Your task to perform on an android device: What's the weather going to be tomorrow? Image 0: 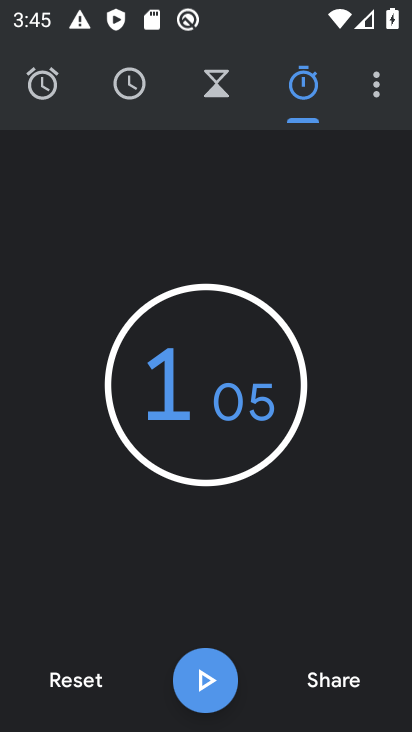
Step 0: press home button
Your task to perform on an android device: What's the weather going to be tomorrow? Image 1: 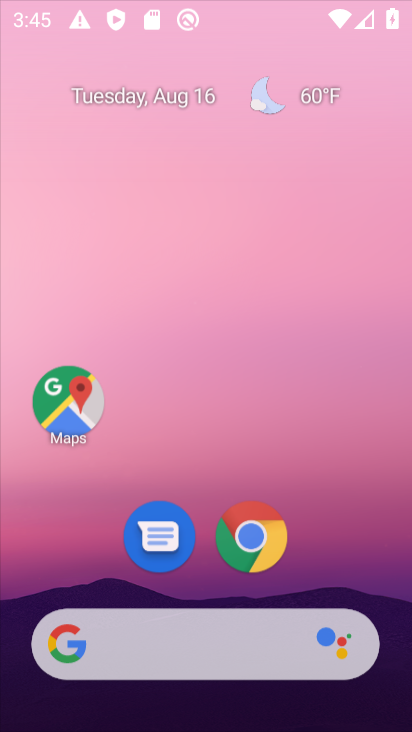
Step 1: drag from (367, 641) to (196, 24)
Your task to perform on an android device: What's the weather going to be tomorrow? Image 2: 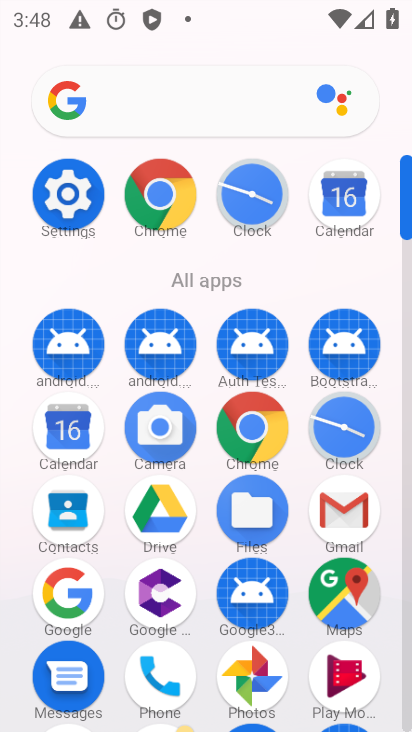
Step 2: click (80, 588)
Your task to perform on an android device: What's the weather going to be tomorrow? Image 3: 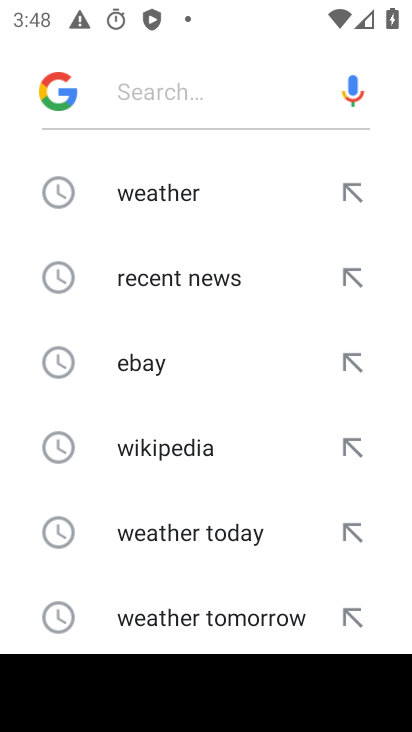
Step 3: drag from (188, 583) to (148, 104)
Your task to perform on an android device: What's the weather going to be tomorrow? Image 4: 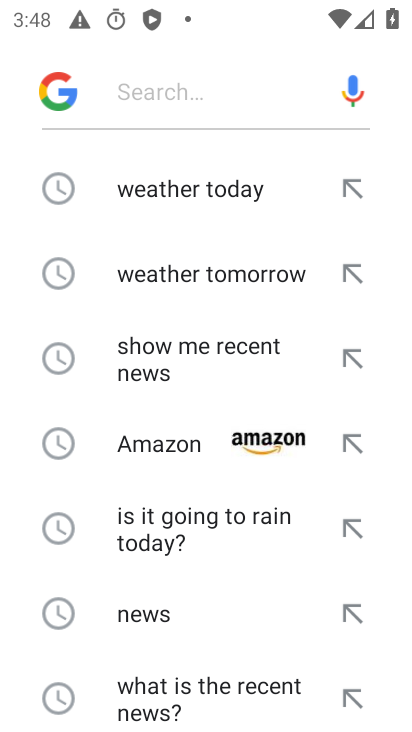
Step 4: drag from (193, 689) to (209, 145)
Your task to perform on an android device: What's the weather going to be tomorrow? Image 5: 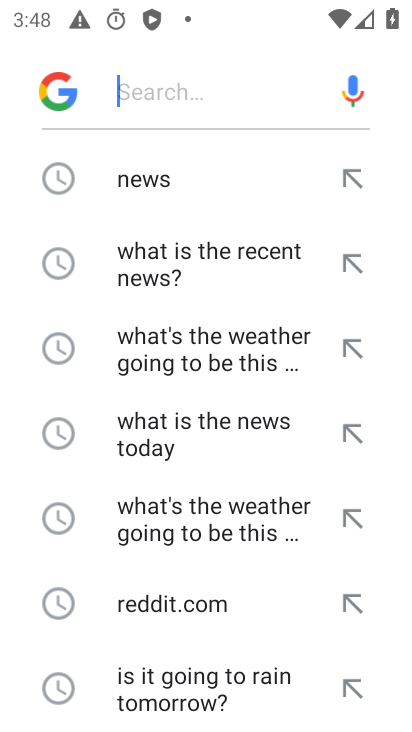
Step 5: click (213, 363)
Your task to perform on an android device: What's the weather going to be tomorrow? Image 6: 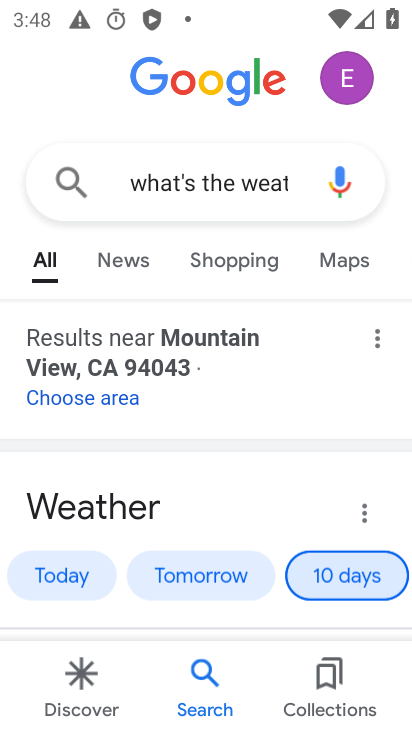
Step 6: task complete